Your task to perform on an android device: turn on location history Image 0: 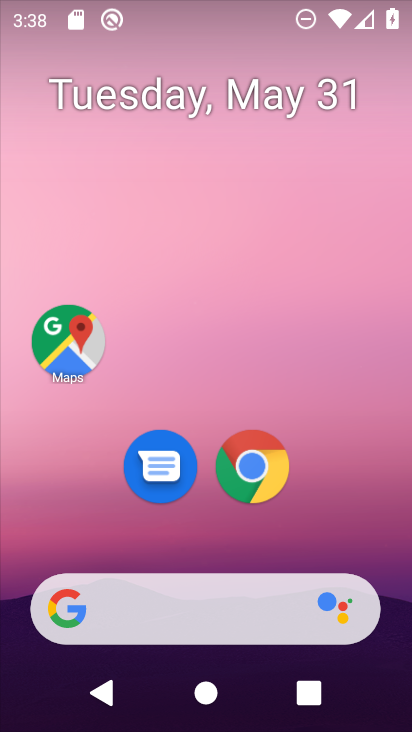
Step 0: drag from (174, 558) to (259, 65)
Your task to perform on an android device: turn on location history Image 1: 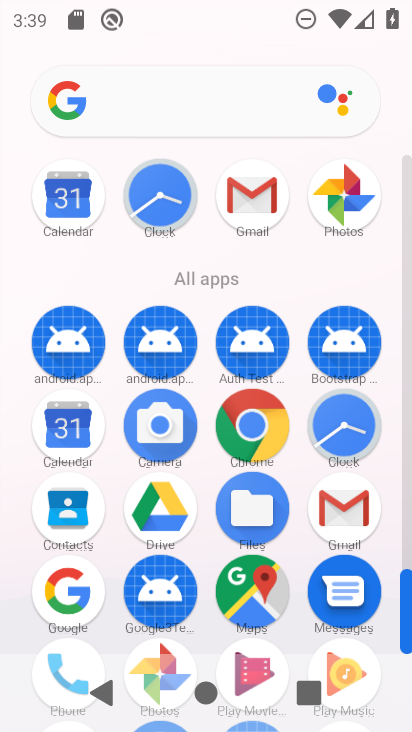
Step 1: click (328, 157)
Your task to perform on an android device: turn on location history Image 2: 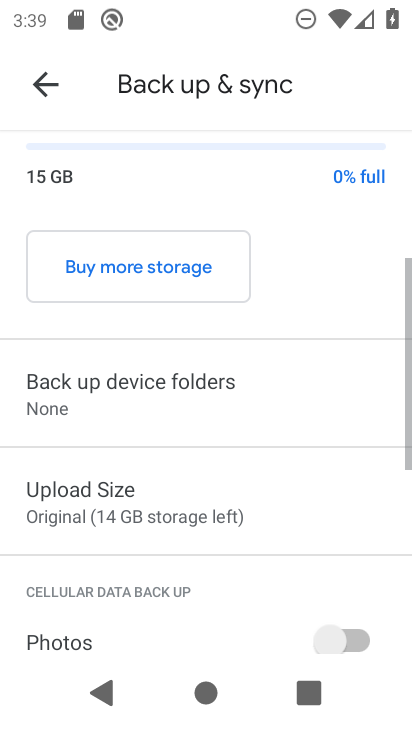
Step 2: click (15, 76)
Your task to perform on an android device: turn on location history Image 3: 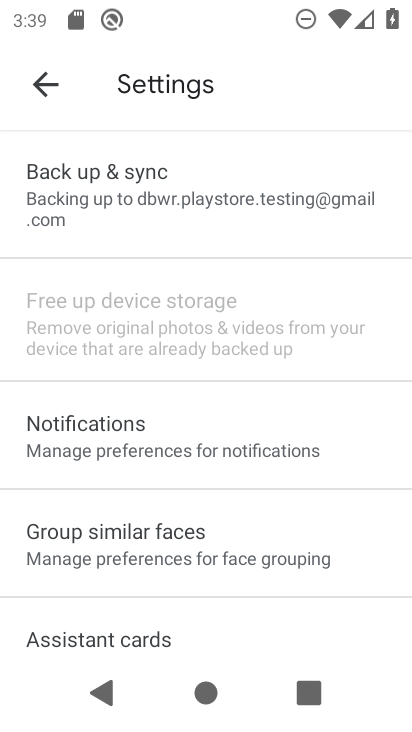
Step 3: click (41, 88)
Your task to perform on an android device: turn on location history Image 4: 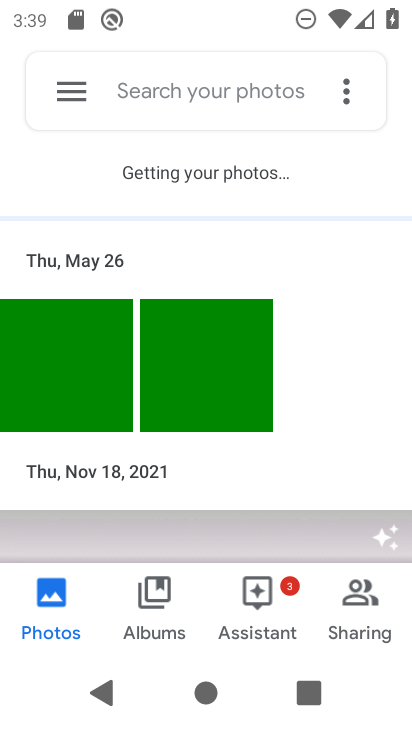
Step 4: press back button
Your task to perform on an android device: turn on location history Image 5: 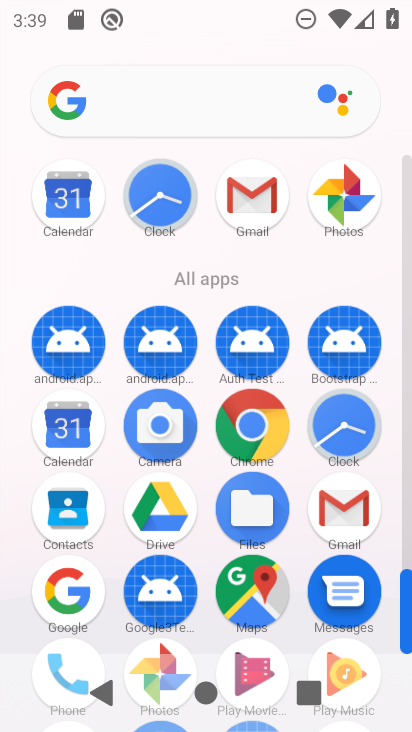
Step 5: drag from (157, 545) to (283, 84)
Your task to perform on an android device: turn on location history Image 6: 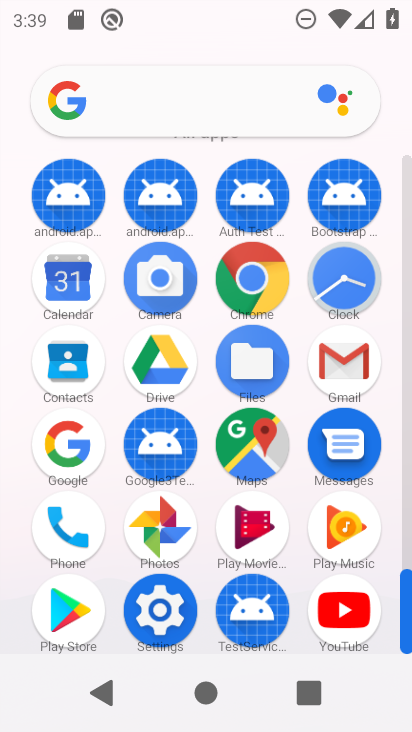
Step 6: click (157, 616)
Your task to perform on an android device: turn on location history Image 7: 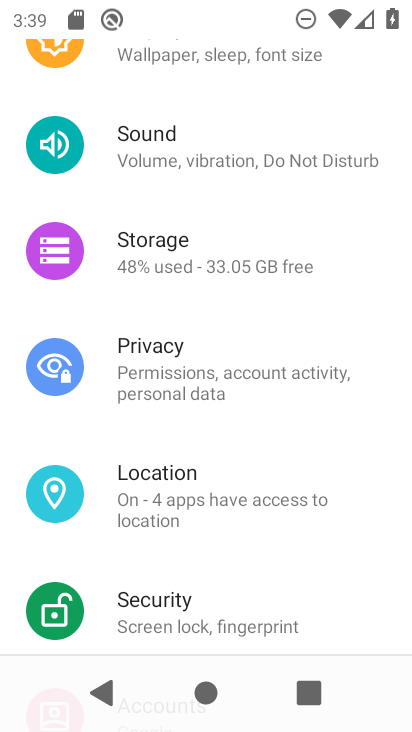
Step 7: click (154, 500)
Your task to perform on an android device: turn on location history Image 8: 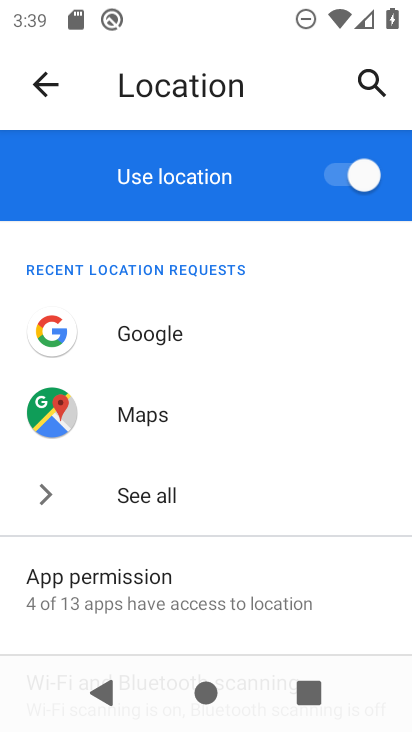
Step 8: drag from (258, 585) to (308, 163)
Your task to perform on an android device: turn on location history Image 9: 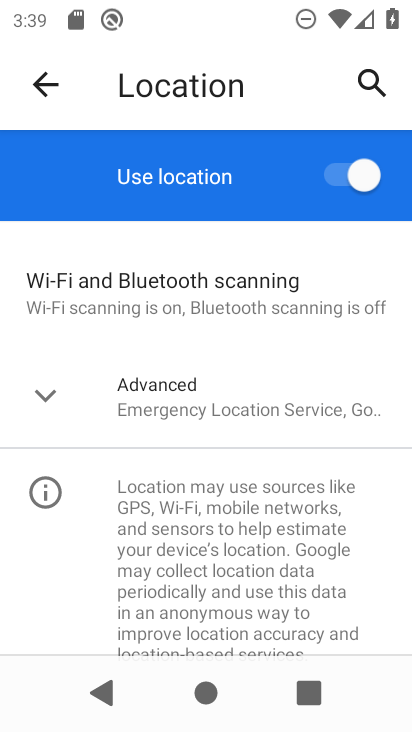
Step 9: click (214, 408)
Your task to perform on an android device: turn on location history Image 10: 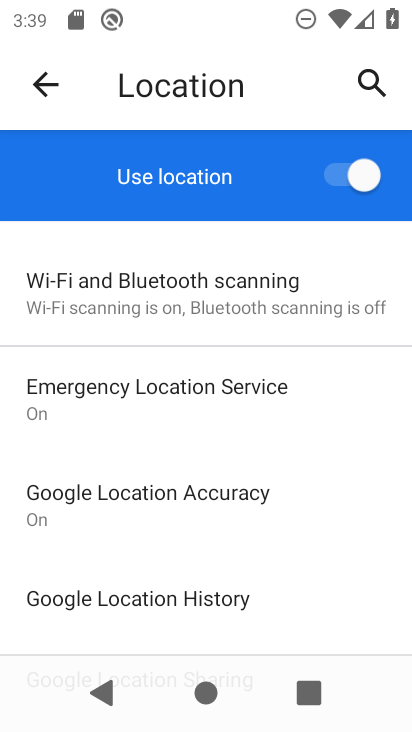
Step 10: click (145, 596)
Your task to perform on an android device: turn on location history Image 11: 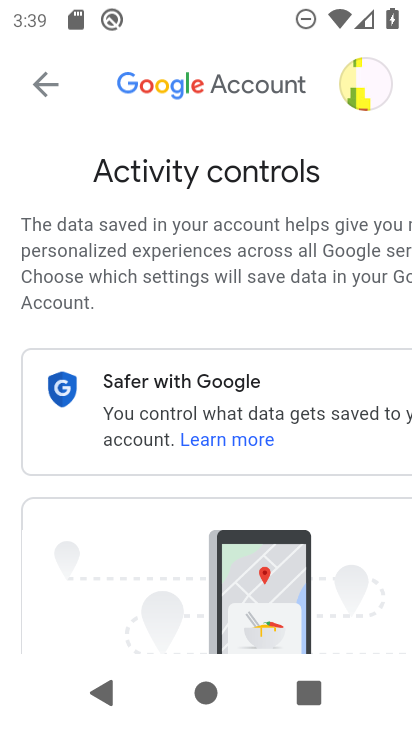
Step 11: task complete